Your task to perform on an android device: delete browsing data in the chrome app Image 0: 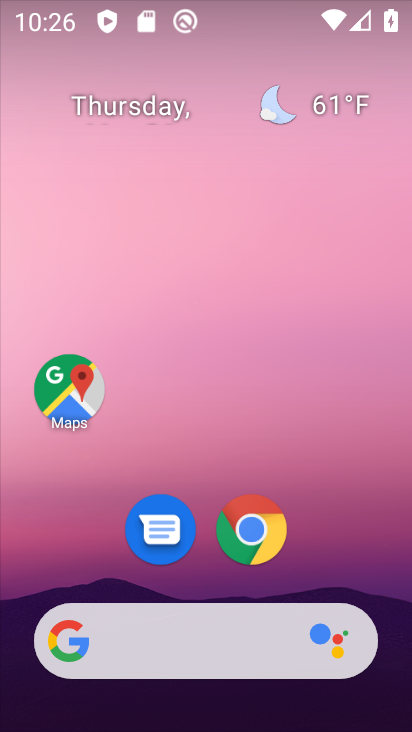
Step 0: click (268, 526)
Your task to perform on an android device: delete browsing data in the chrome app Image 1: 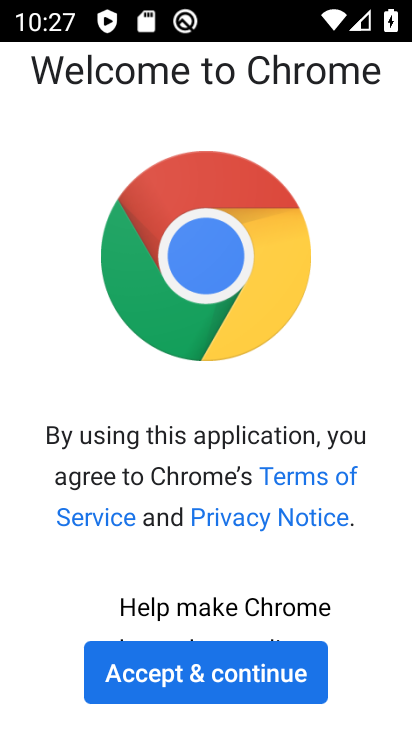
Step 1: click (212, 673)
Your task to perform on an android device: delete browsing data in the chrome app Image 2: 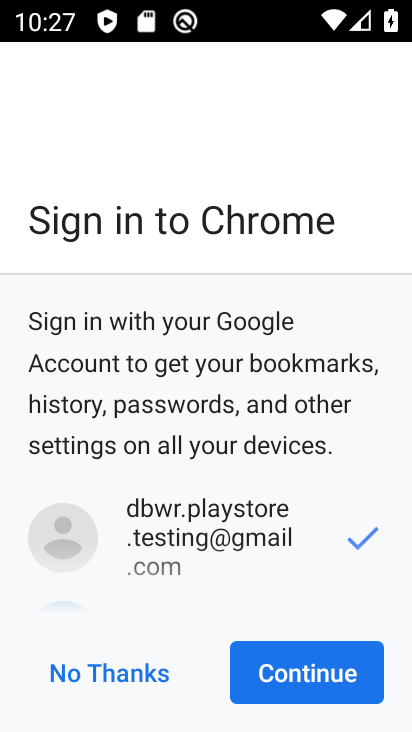
Step 2: click (245, 670)
Your task to perform on an android device: delete browsing data in the chrome app Image 3: 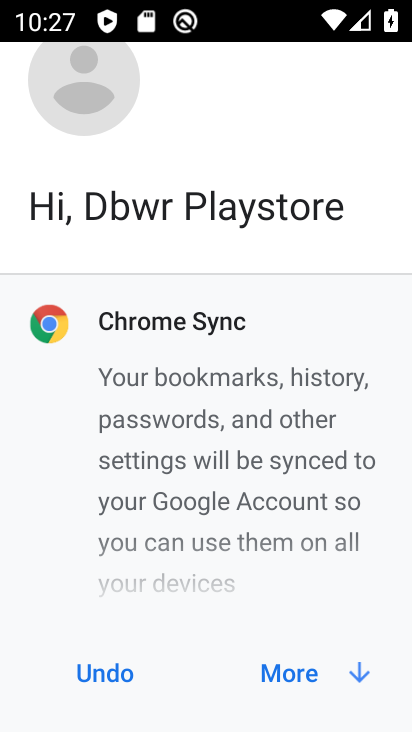
Step 3: click (314, 657)
Your task to perform on an android device: delete browsing data in the chrome app Image 4: 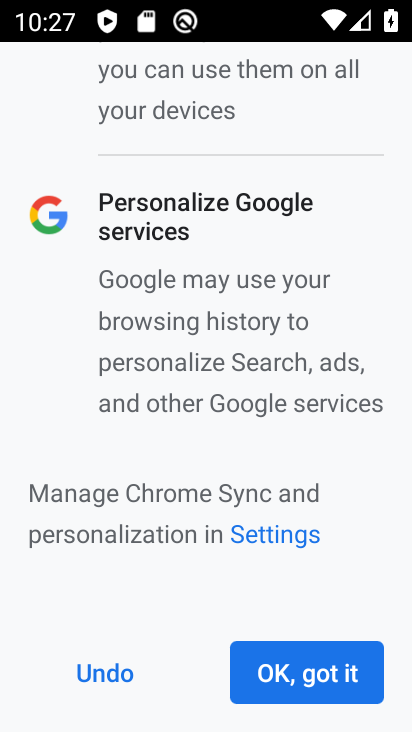
Step 4: click (314, 657)
Your task to perform on an android device: delete browsing data in the chrome app Image 5: 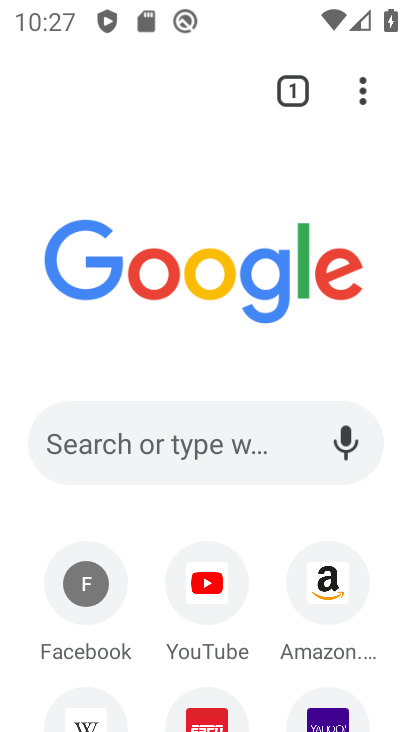
Step 5: click (375, 82)
Your task to perform on an android device: delete browsing data in the chrome app Image 6: 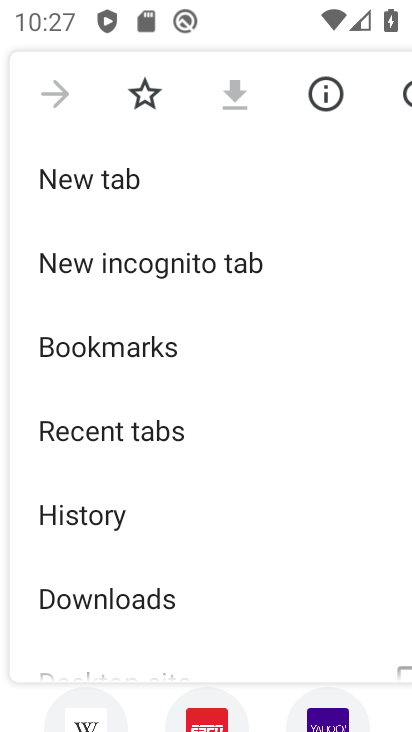
Step 6: click (163, 533)
Your task to perform on an android device: delete browsing data in the chrome app Image 7: 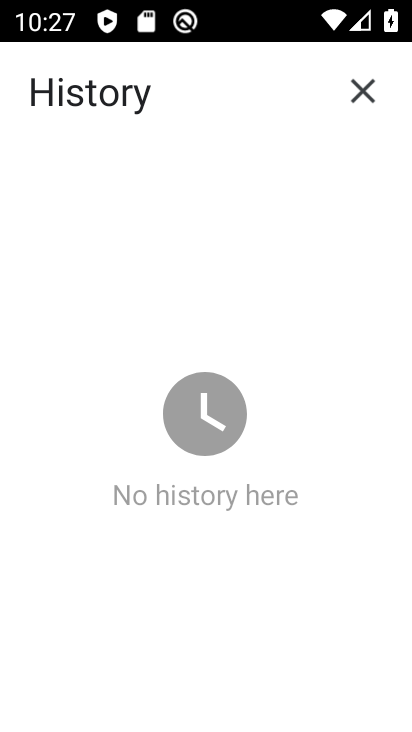
Step 7: task complete